Your task to perform on an android device: Add razer blade to the cart on newegg, then select checkout. Image 0: 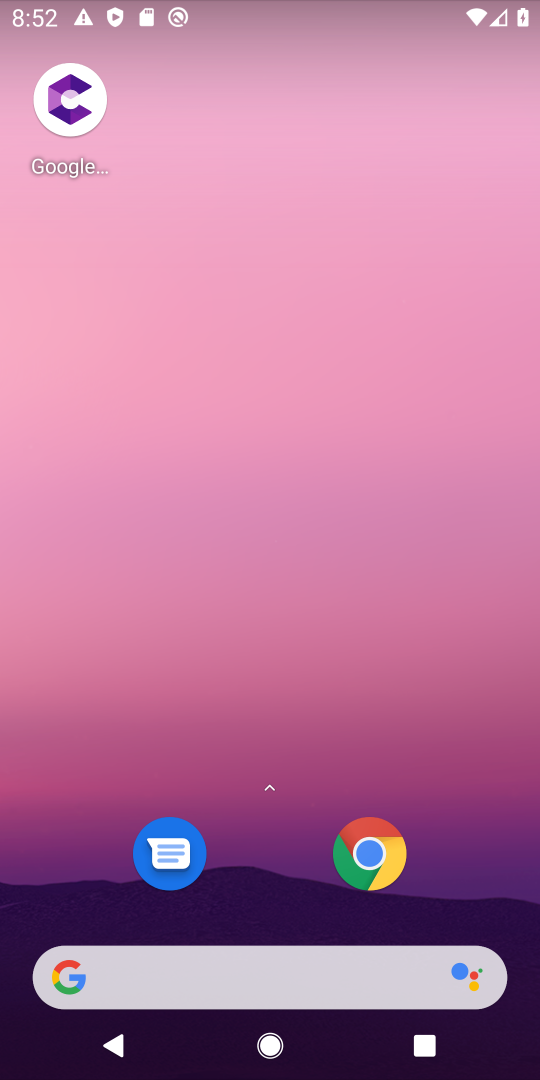
Step 0: click (304, 973)
Your task to perform on an android device: Add razer blade to the cart on newegg, then select checkout. Image 1: 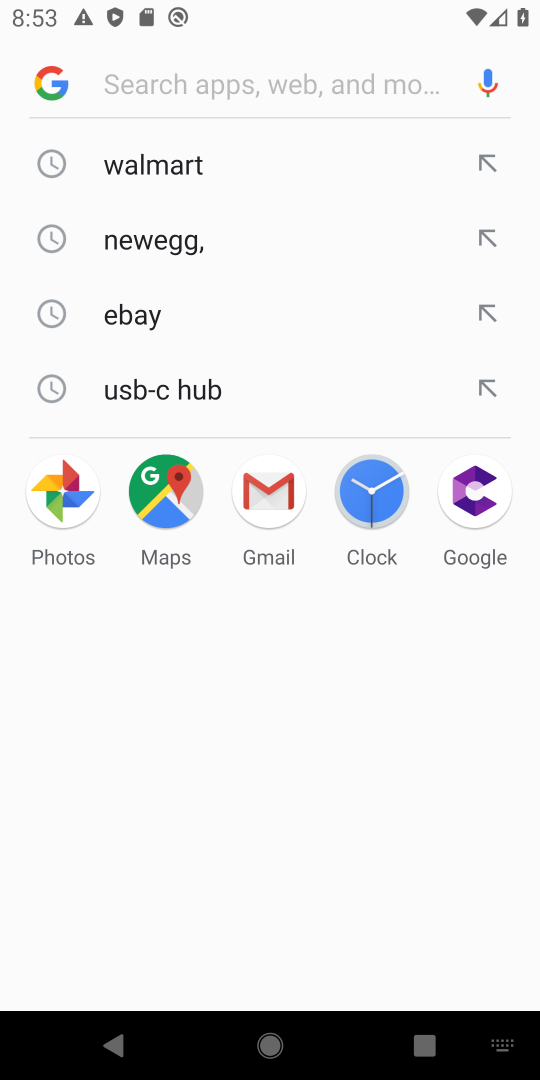
Step 1: click (160, 268)
Your task to perform on an android device: Add razer blade to the cart on newegg, then select checkout. Image 2: 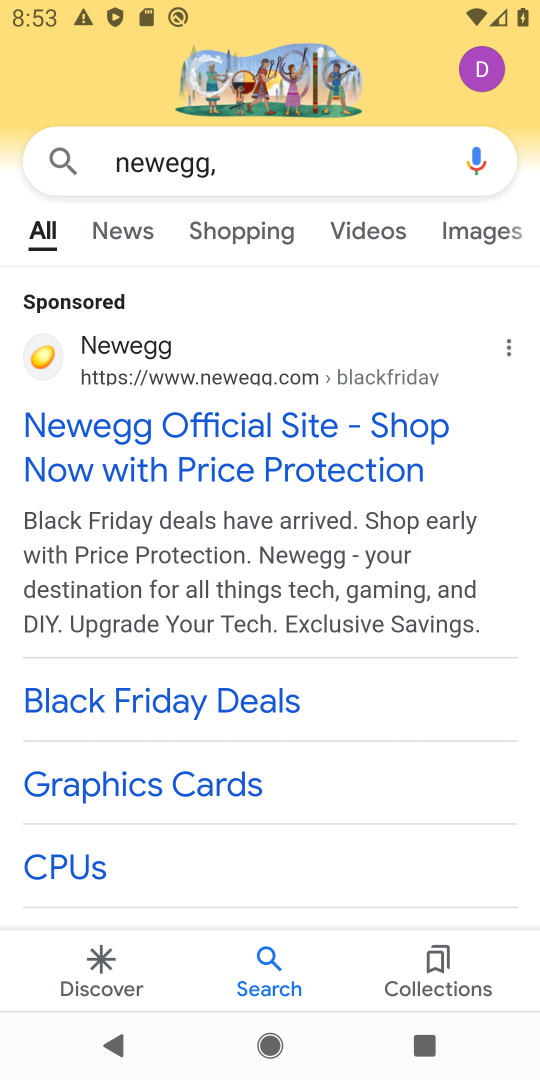
Step 2: click (346, 457)
Your task to perform on an android device: Add razer blade to the cart on newegg, then select checkout. Image 3: 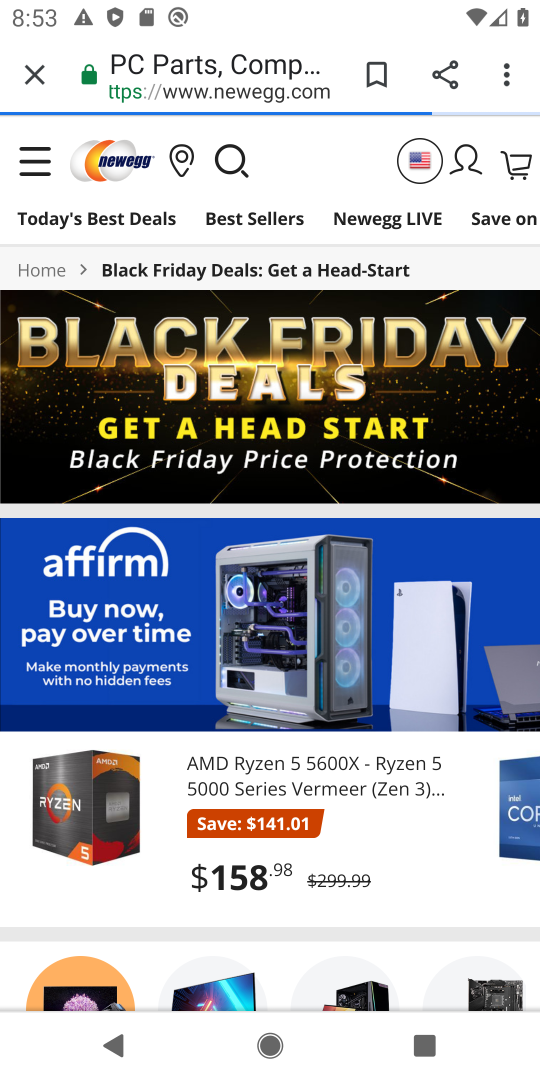
Step 3: click (234, 155)
Your task to perform on an android device: Add razer blade to the cart on newegg, then select checkout. Image 4: 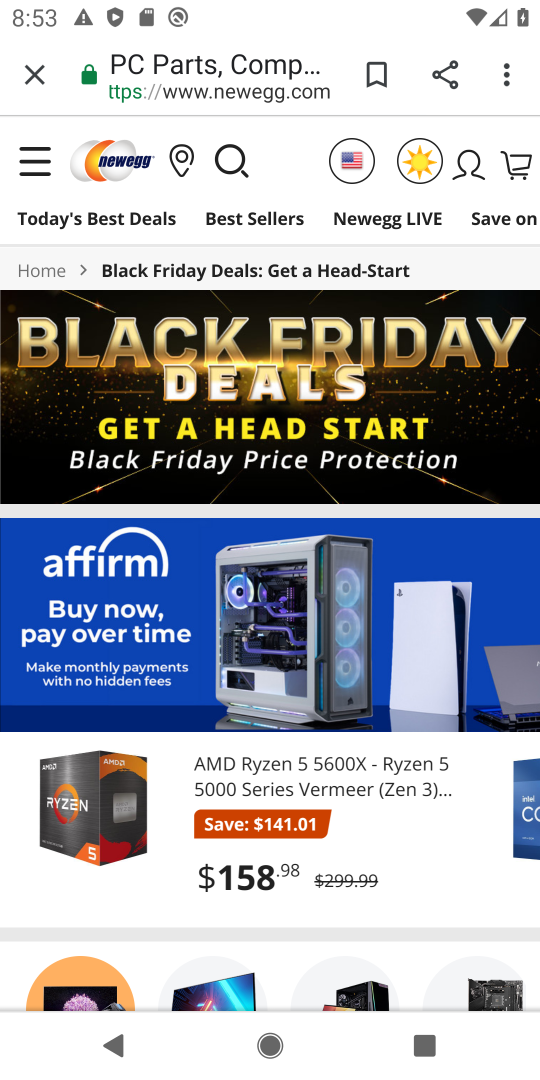
Step 4: click (227, 162)
Your task to perform on an android device: Add razer blade to the cart on newegg, then select checkout. Image 5: 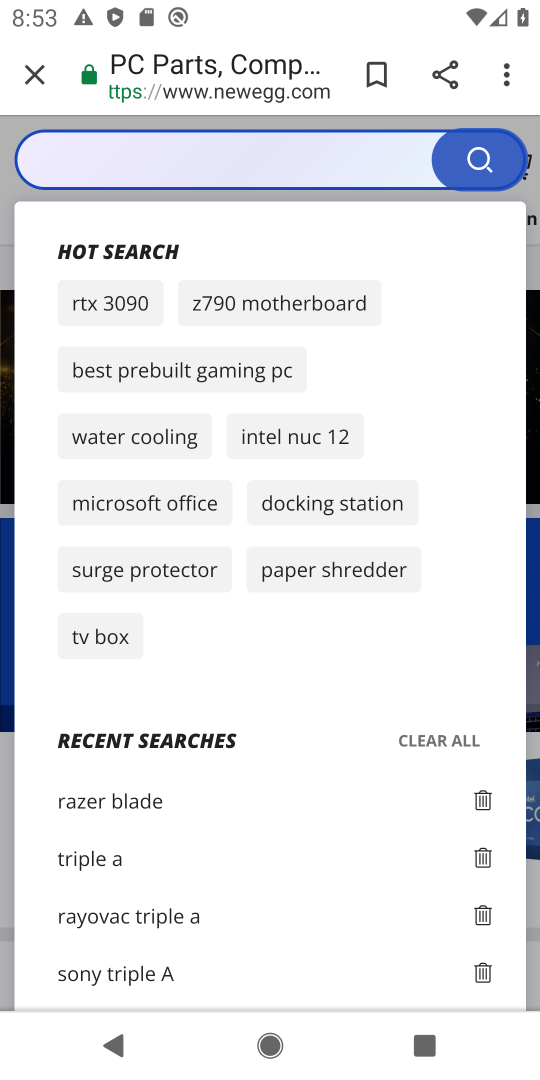
Step 5: click (227, 162)
Your task to perform on an android device: Add razer blade to the cart on newegg, then select checkout. Image 6: 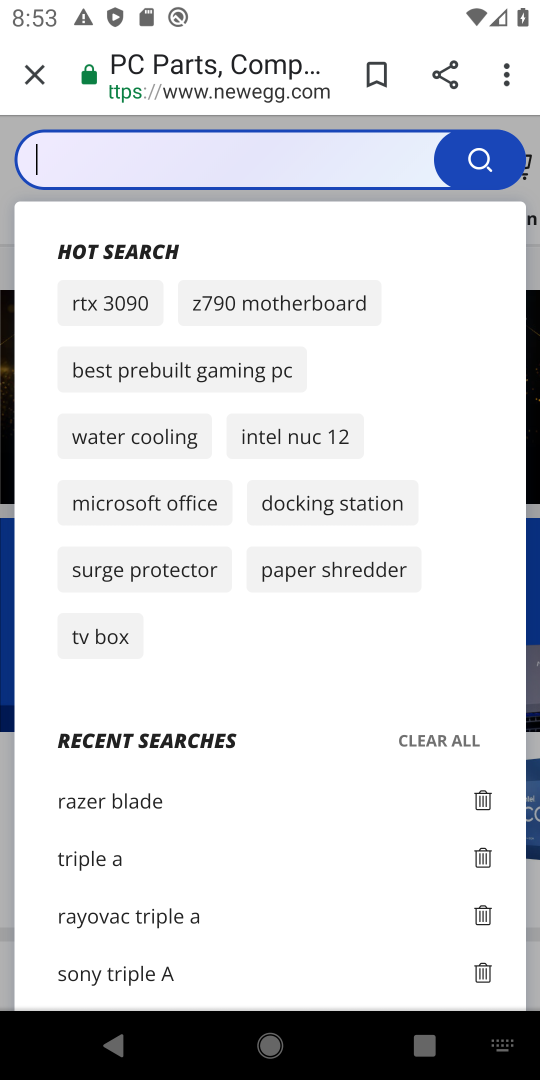
Step 6: type "razer blade"
Your task to perform on an android device: Add razer blade to the cart on newegg, then select checkout. Image 7: 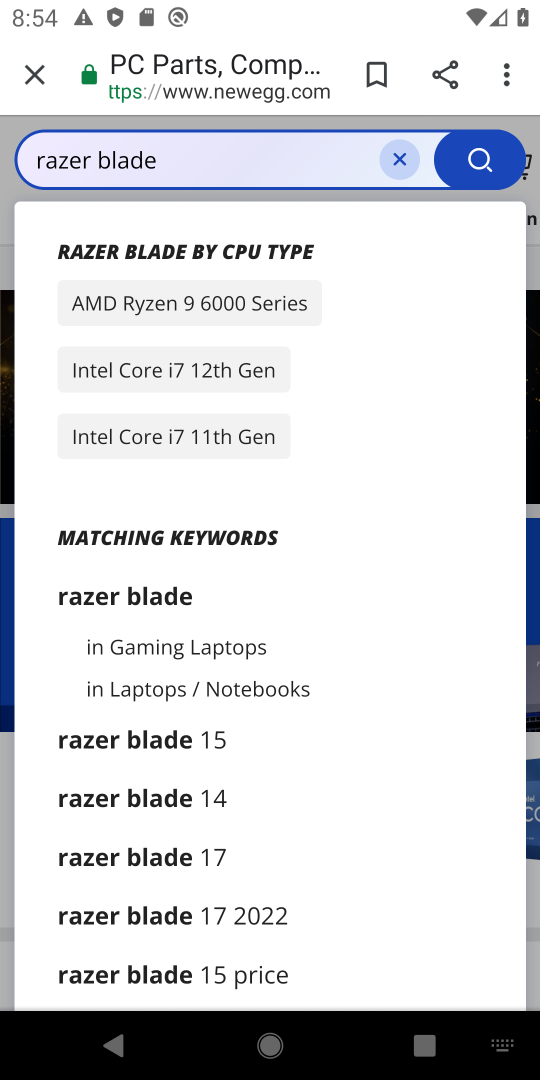
Step 7: click (468, 155)
Your task to perform on an android device: Add razer blade to the cart on newegg, then select checkout. Image 8: 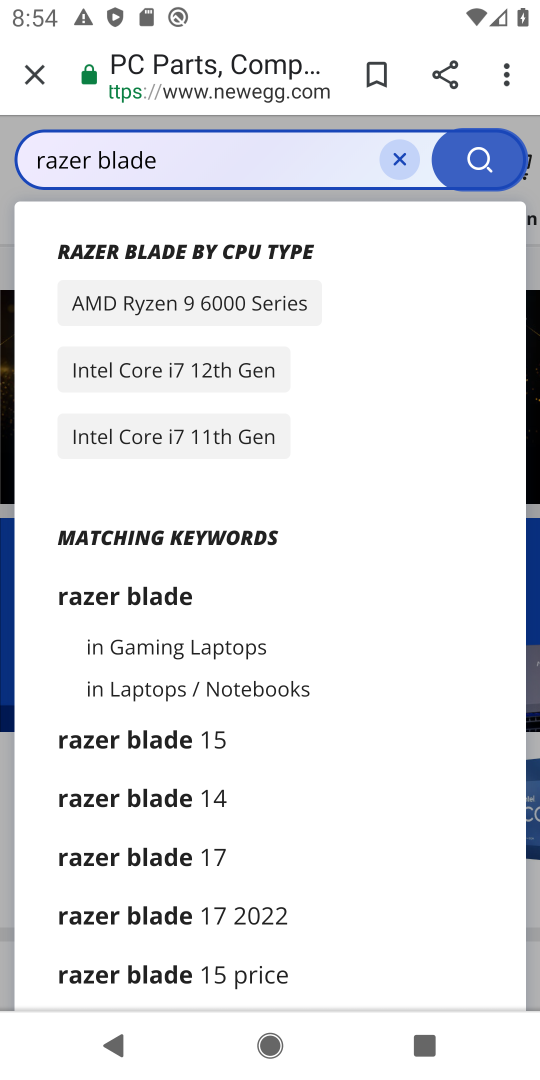
Step 8: click (481, 171)
Your task to perform on an android device: Add razer blade to the cart on newegg, then select checkout. Image 9: 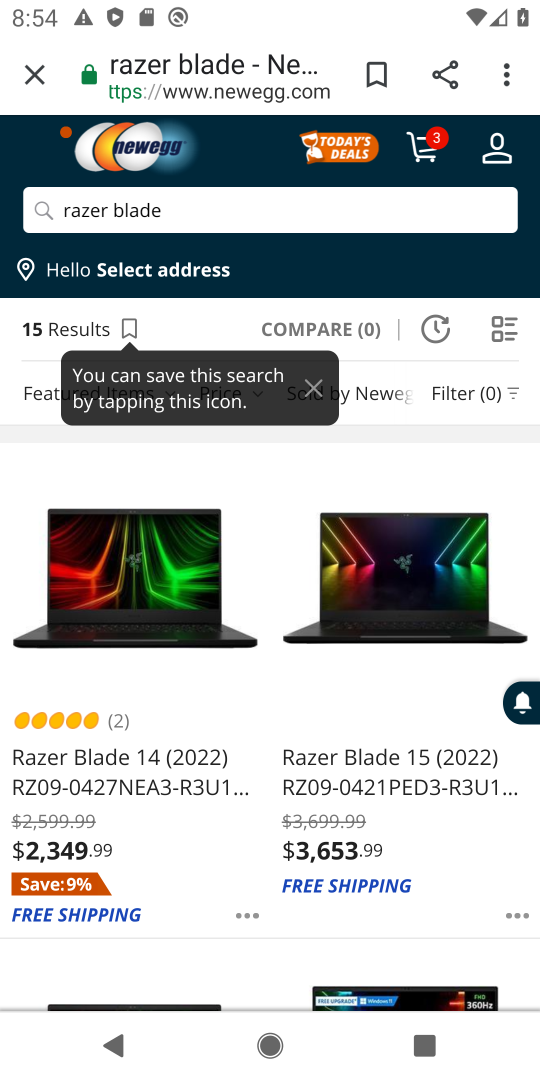
Step 9: click (228, 205)
Your task to perform on an android device: Add razer blade to the cart on newegg, then select checkout. Image 10: 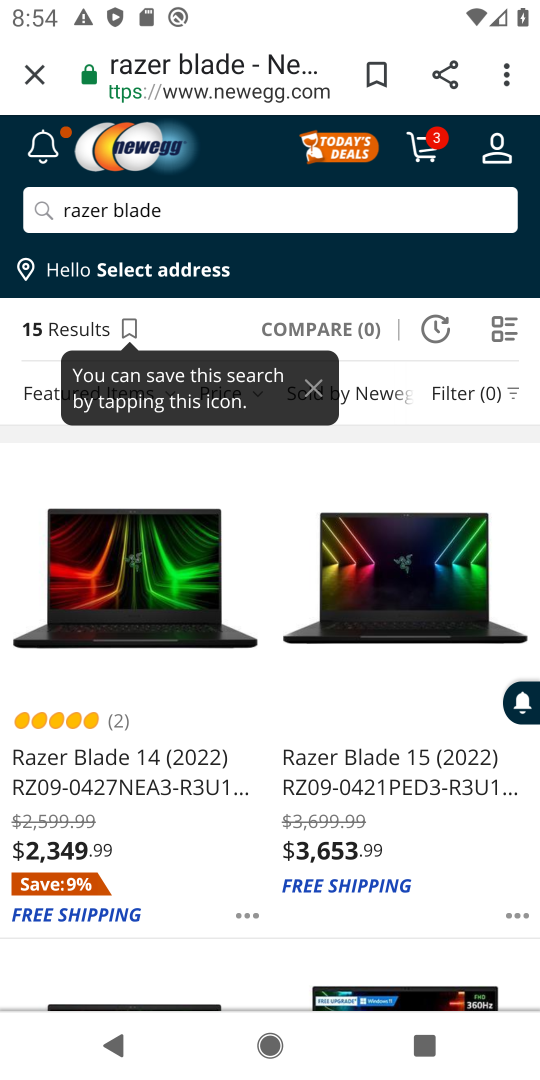
Step 10: click (66, 817)
Your task to perform on an android device: Add razer blade to the cart on newegg, then select checkout. Image 11: 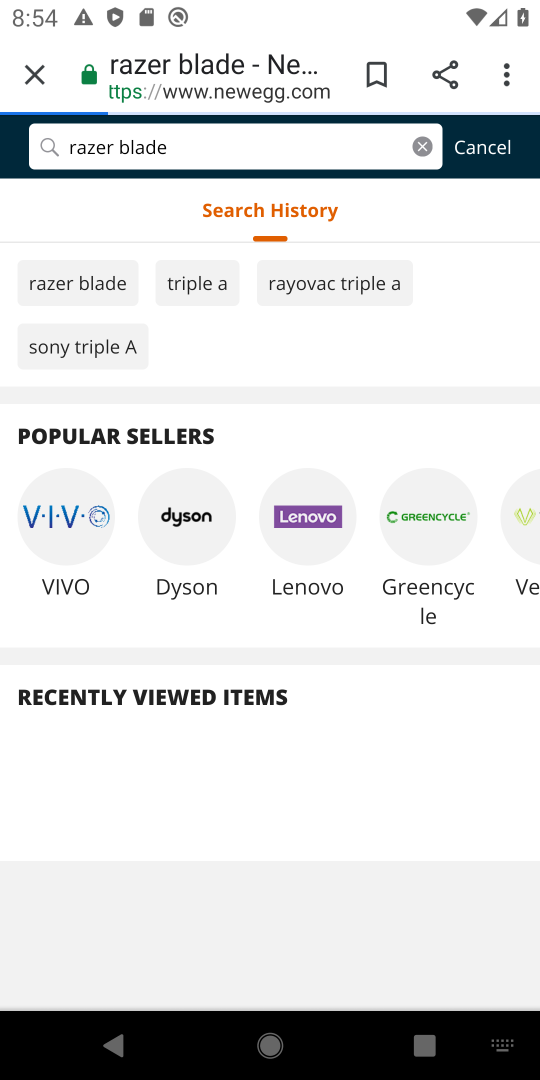
Step 11: click (66, 817)
Your task to perform on an android device: Add razer blade to the cart on newegg, then select checkout. Image 12: 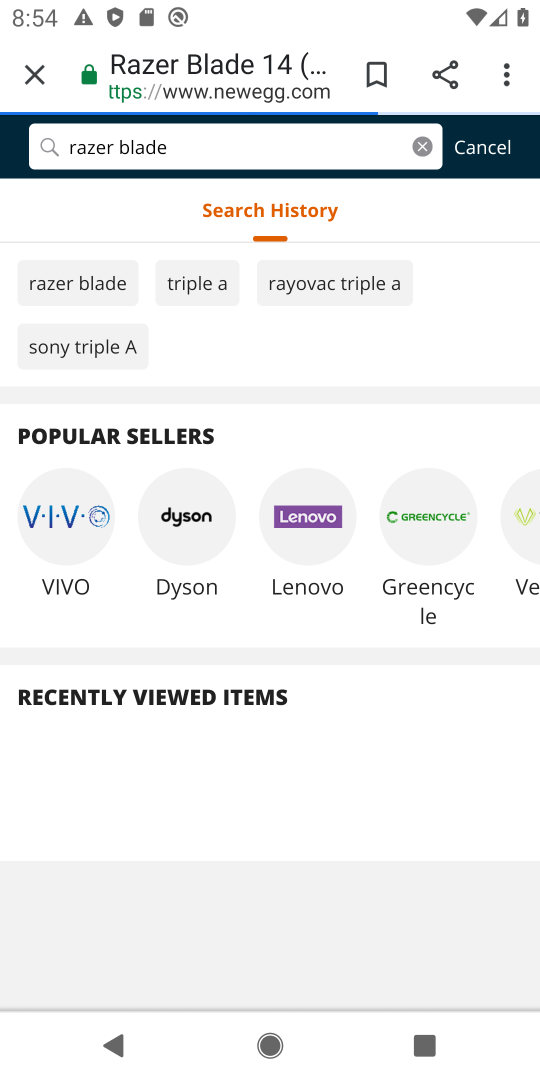
Step 12: drag from (267, 832) to (351, 185)
Your task to perform on an android device: Add razer blade to the cart on newegg, then select checkout. Image 13: 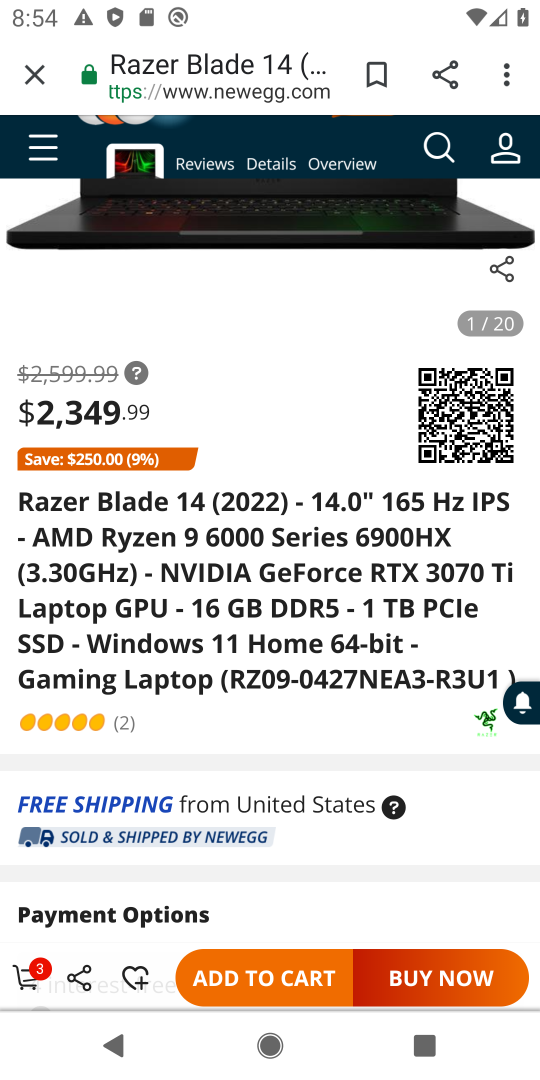
Step 13: click (247, 989)
Your task to perform on an android device: Add razer blade to the cart on newegg, then select checkout. Image 14: 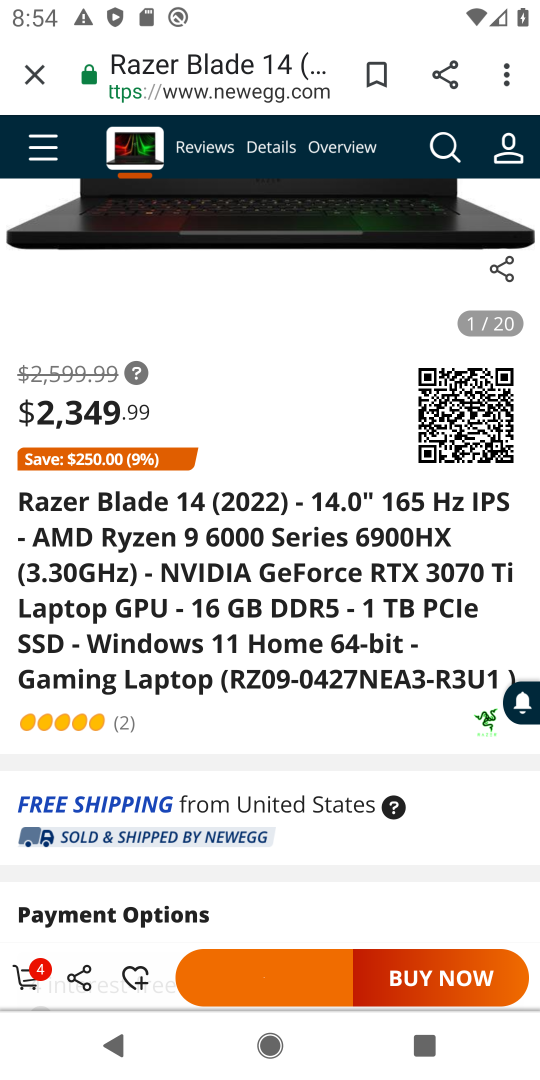
Step 14: task complete